Your task to perform on an android device: Open Youtube and go to "Your channel" Image 0: 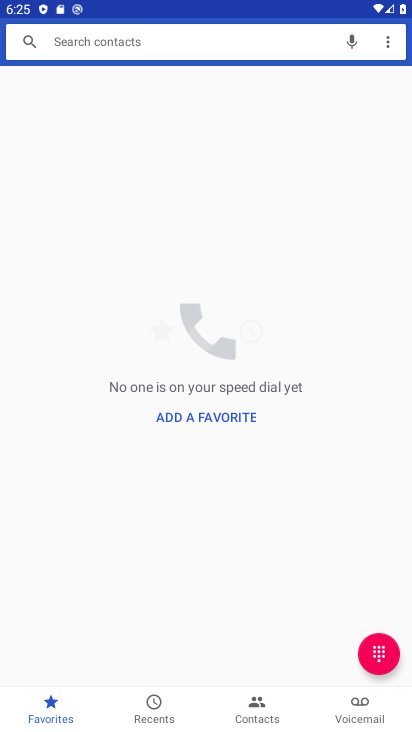
Step 0: drag from (193, 648) to (252, 8)
Your task to perform on an android device: Open Youtube and go to "Your channel" Image 1: 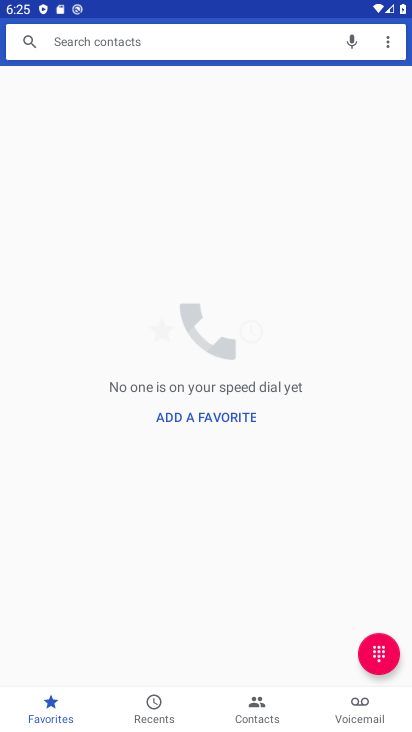
Step 1: press back button
Your task to perform on an android device: Open Youtube and go to "Your channel" Image 2: 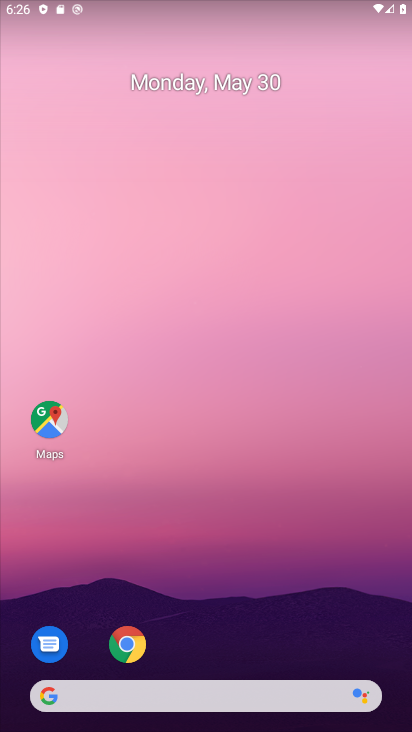
Step 2: drag from (228, 600) to (153, 9)
Your task to perform on an android device: Open Youtube and go to "Your channel" Image 3: 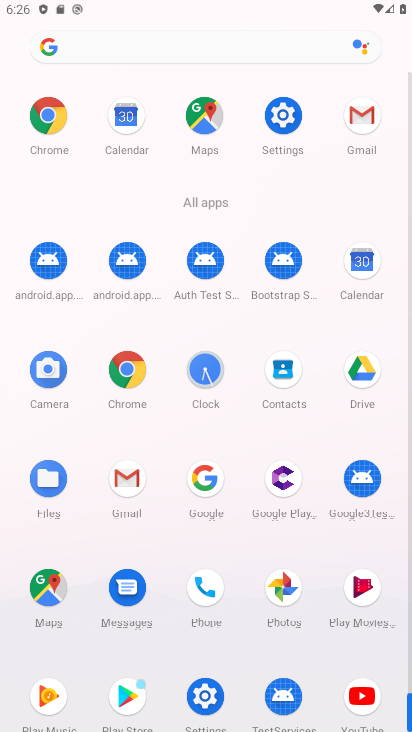
Step 3: click (367, 697)
Your task to perform on an android device: Open Youtube and go to "Your channel" Image 4: 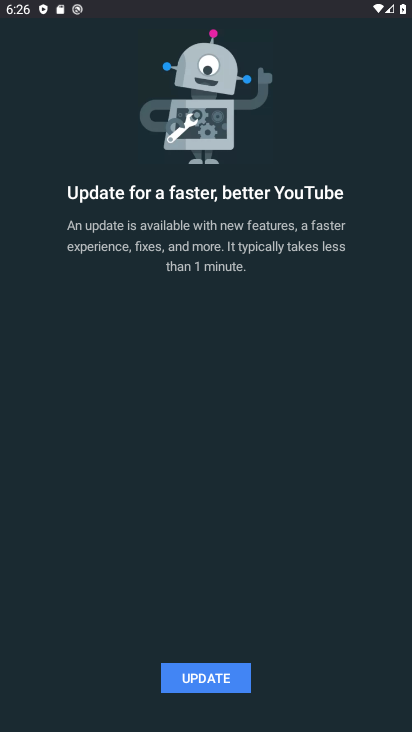
Step 4: click (187, 676)
Your task to perform on an android device: Open Youtube and go to "Your channel" Image 5: 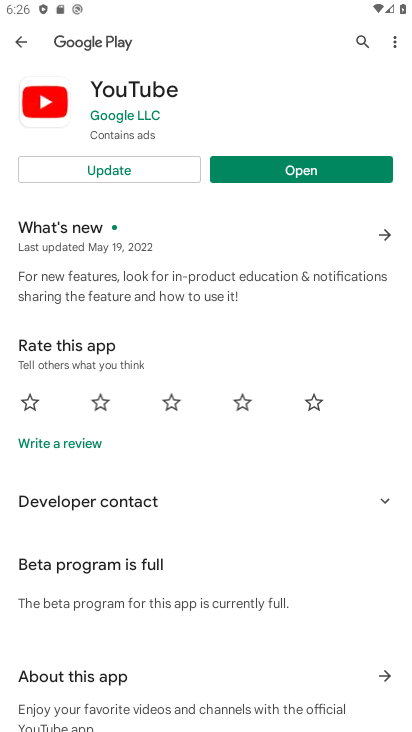
Step 5: click (117, 166)
Your task to perform on an android device: Open Youtube and go to "Your channel" Image 6: 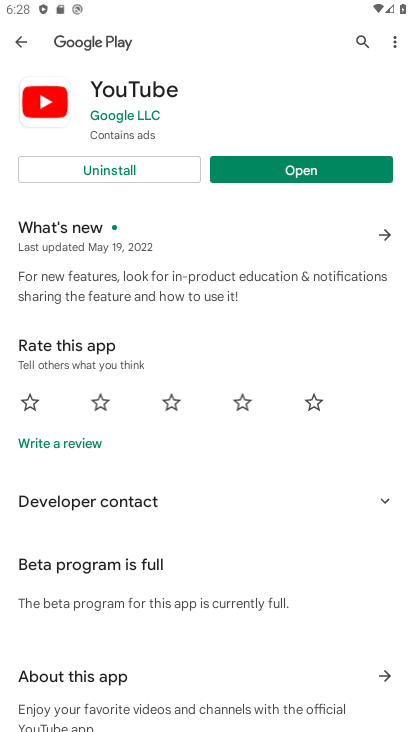
Step 6: press home button
Your task to perform on an android device: Open Youtube and go to "Your channel" Image 7: 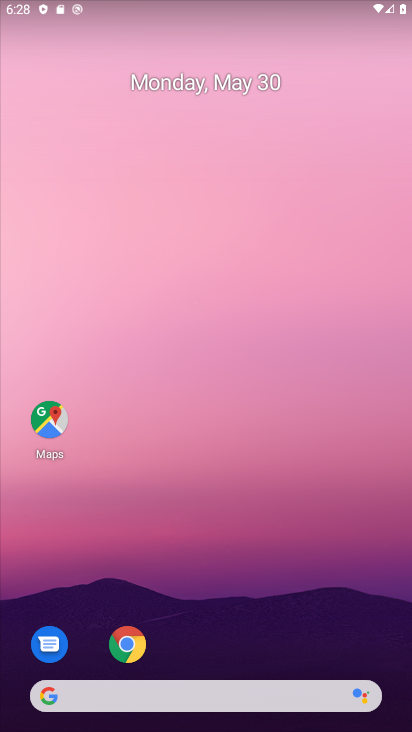
Step 7: drag from (203, 638) to (223, 111)
Your task to perform on an android device: Open Youtube and go to "Your channel" Image 8: 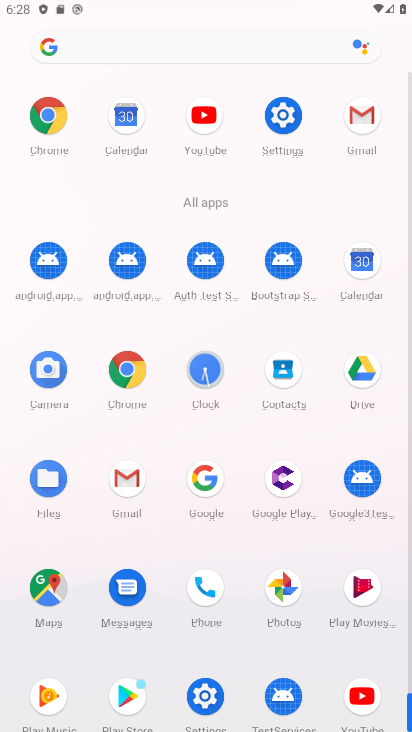
Step 8: click (376, 695)
Your task to perform on an android device: Open Youtube and go to "Your channel" Image 9: 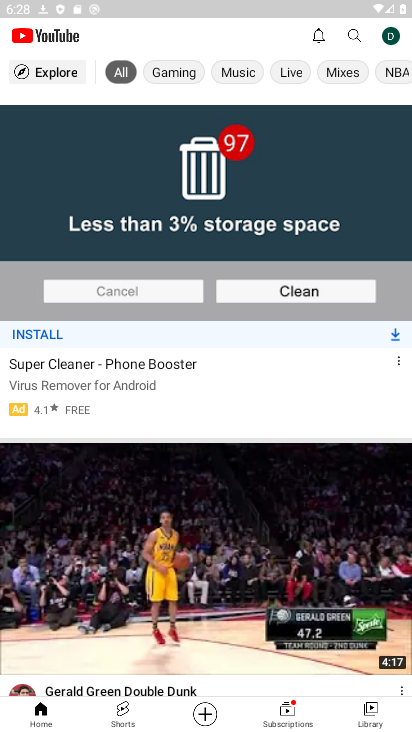
Step 9: click (384, 34)
Your task to perform on an android device: Open Youtube and go to "Your channel" Image 10: 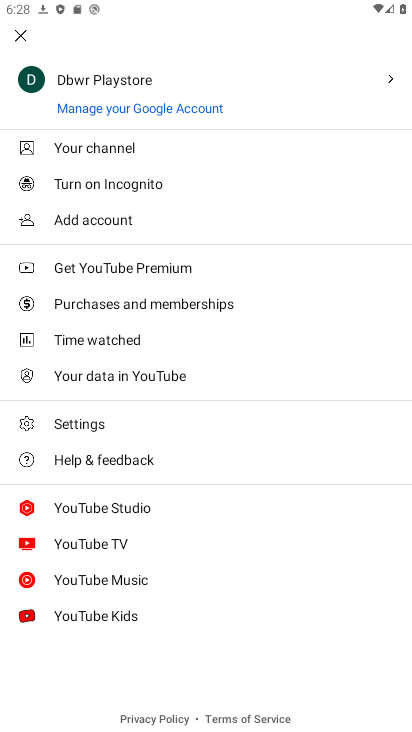
Step 10: click (30, 75)
Your task to perform on an android device: Open Youtube and go to "Your channel" Image 11: 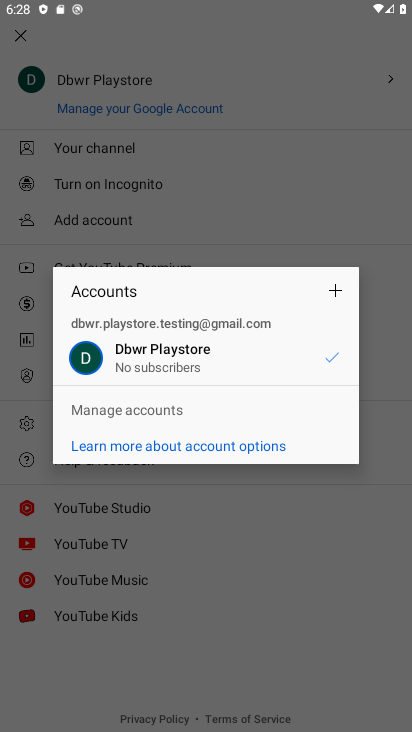
Step 11: click (109, 149)
Your task to perform on an android device: Open Youtube and go to "Your channel" Image 12: 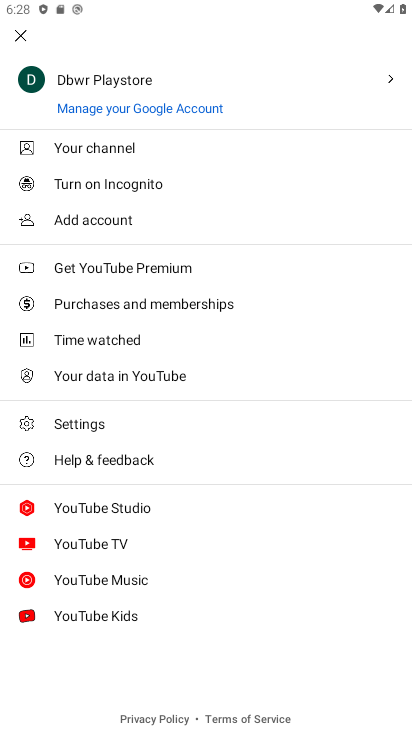
Step 12: click (109, 149)
Your task to perform on an android device: Open Youtube and go to "Your channel" Image 13: 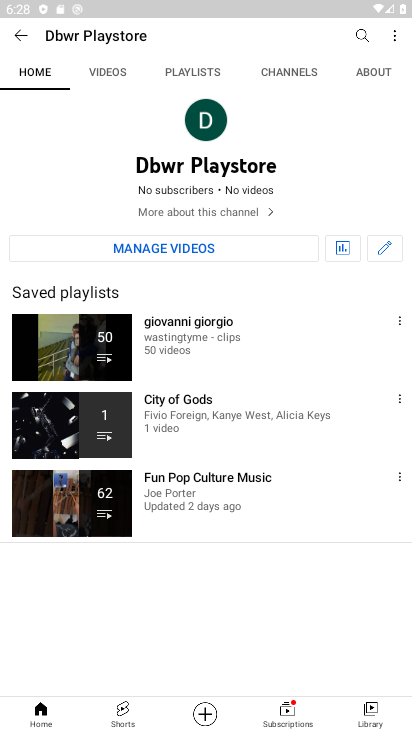
Step 13: task complete